Your task to perform on an android device: Open calendar and show me the fourth week of next month Image 0: 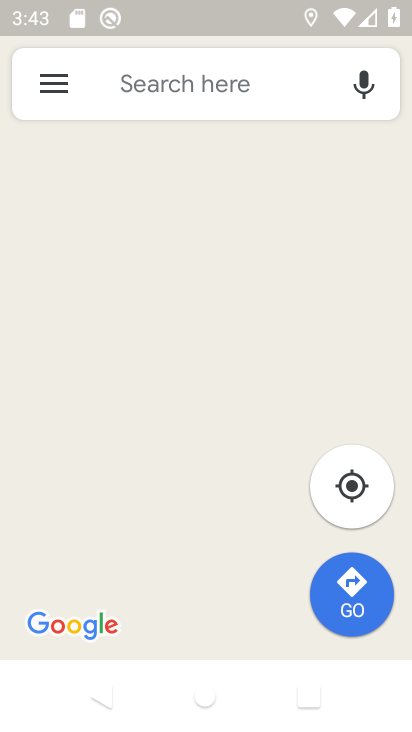
Step 0: drag from (168, 577) to (258, 61)
Your task to perform on an android device: Open calendar and show me the fourth week of next month Image 1: 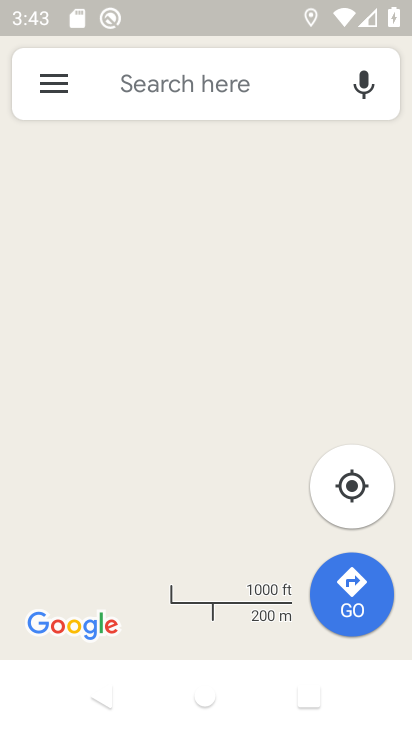
Step 1: press back button
Your task to perform on an android device: Open calendar and show me the fourth week of next month Image 2: 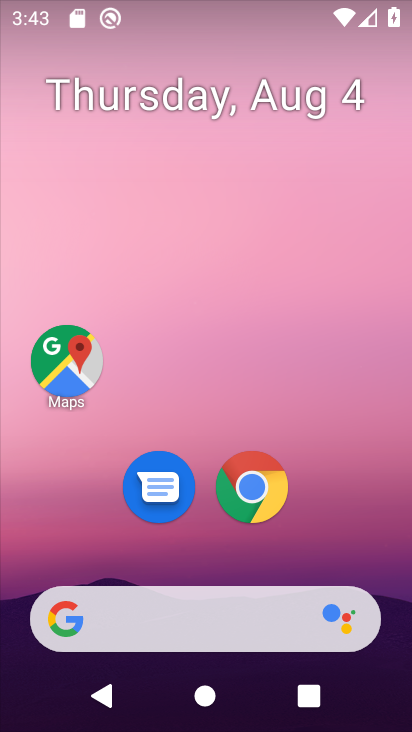
Step 2: drag from (207, 572) to (286, 50)
Your task to perform on an android device: Open calendar and show me the fourth week of next month Image 3: 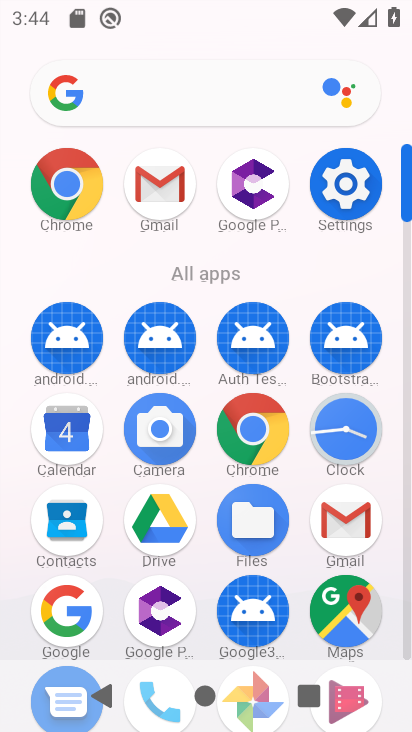
Step 3: click (48, 440)
Your task to perform on an android device: Open calendar and show me the fourth week of next month Image 4: 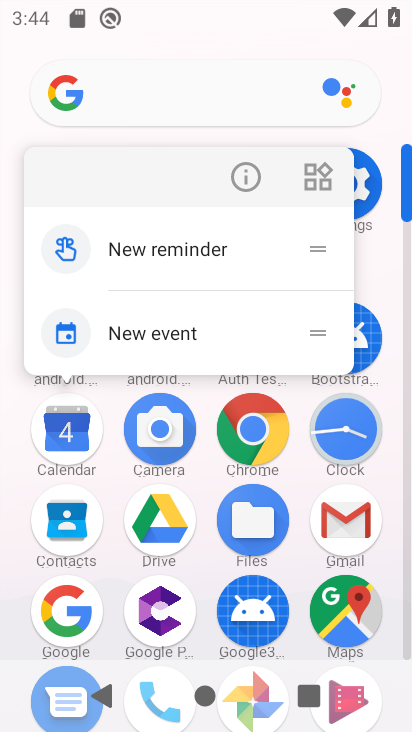
Step 4: click (67, 427)
Your task to perform on an android device: Open calendar and show me the fourth week of next month Image 5: 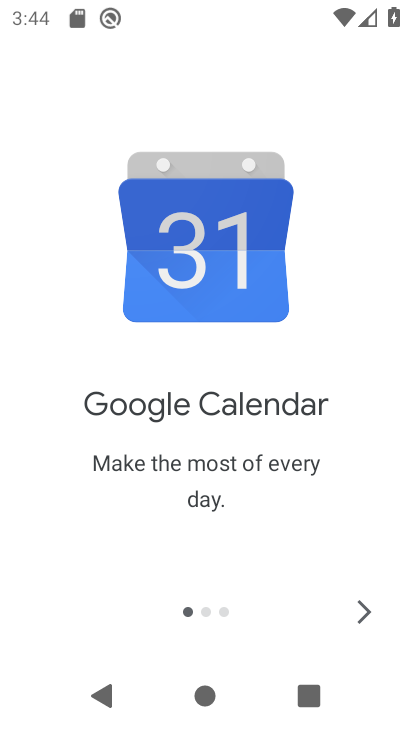
Step 5: click (357, 600)
Your task to perform on an android device: Open calendar and show me the fourth week of next month Image 6: 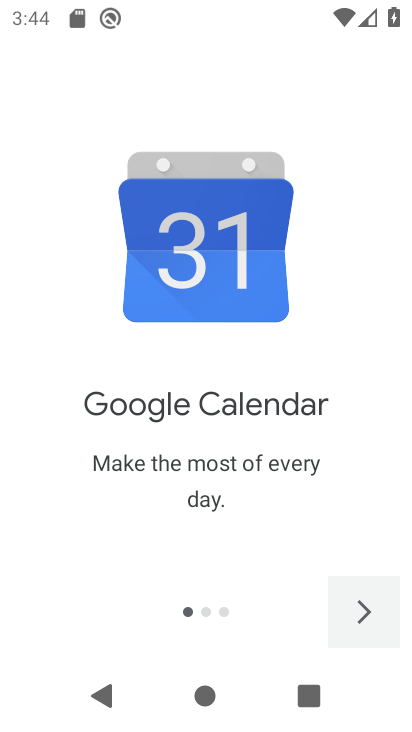
Step 6: click (357, 600)
Your task to perform on an android device: Open calendar and show me the fourth week of next month Image 7: 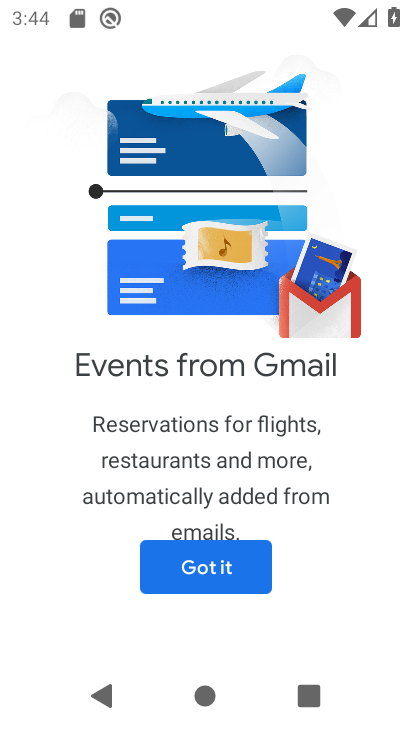
Step 7: click (198, 567)
Your task to perform on an android device: Open calendar and show me the fourth week of next month Image 8: 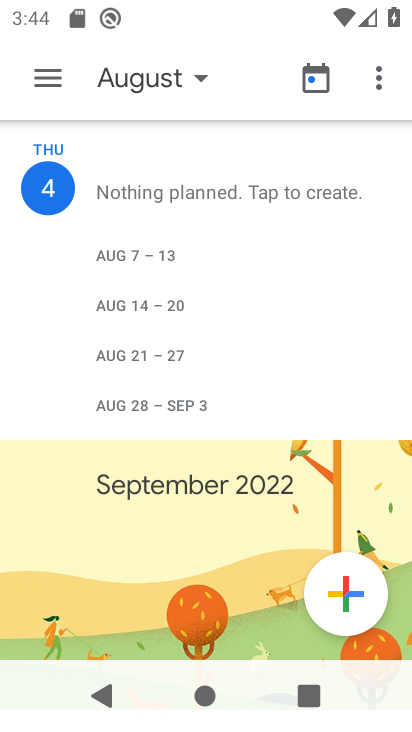
Step 8: click (180, 88)
Your task to perform on an android device: Open calendar and show me the fourth week of next month Image 9: 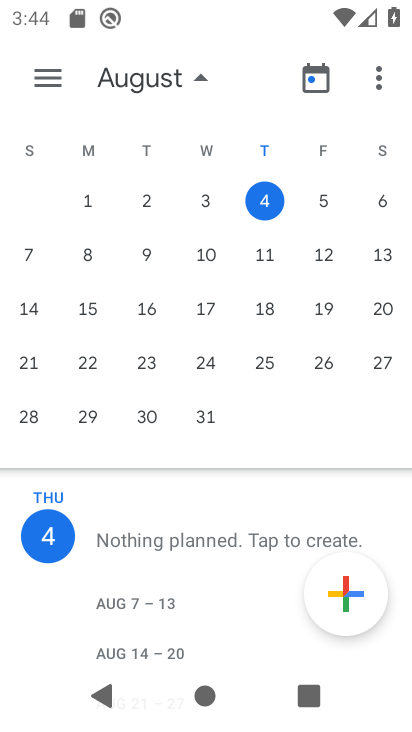
Step 9: drag from (386, 259) to (4, 237)
Your task to perform on an android device: Open calendar and show me the fourth week of next month Image 10: 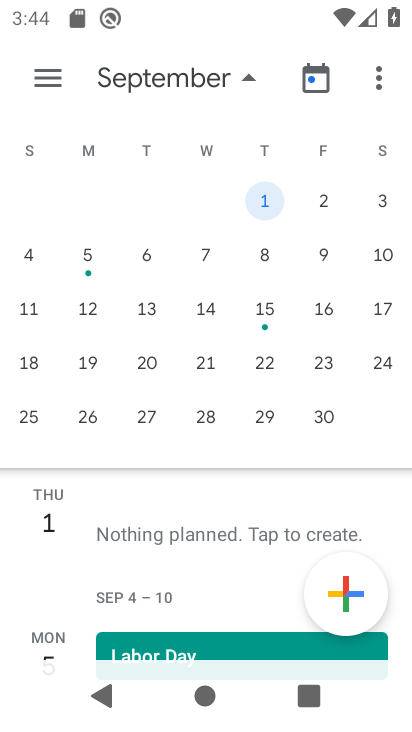
Step 10: click (91, 355)
Your task to perform on an android device: Open calendar and show me the fourth week of next month Image 11: 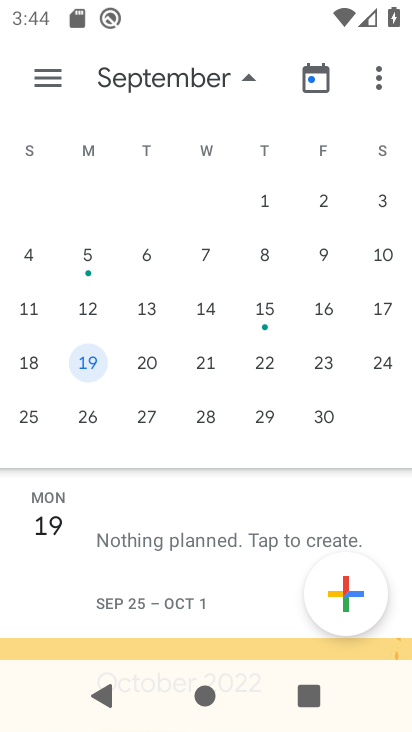
Step 11: task complete